Your task to perform on an android device: search for outdoor chairs on article.com Image 0: 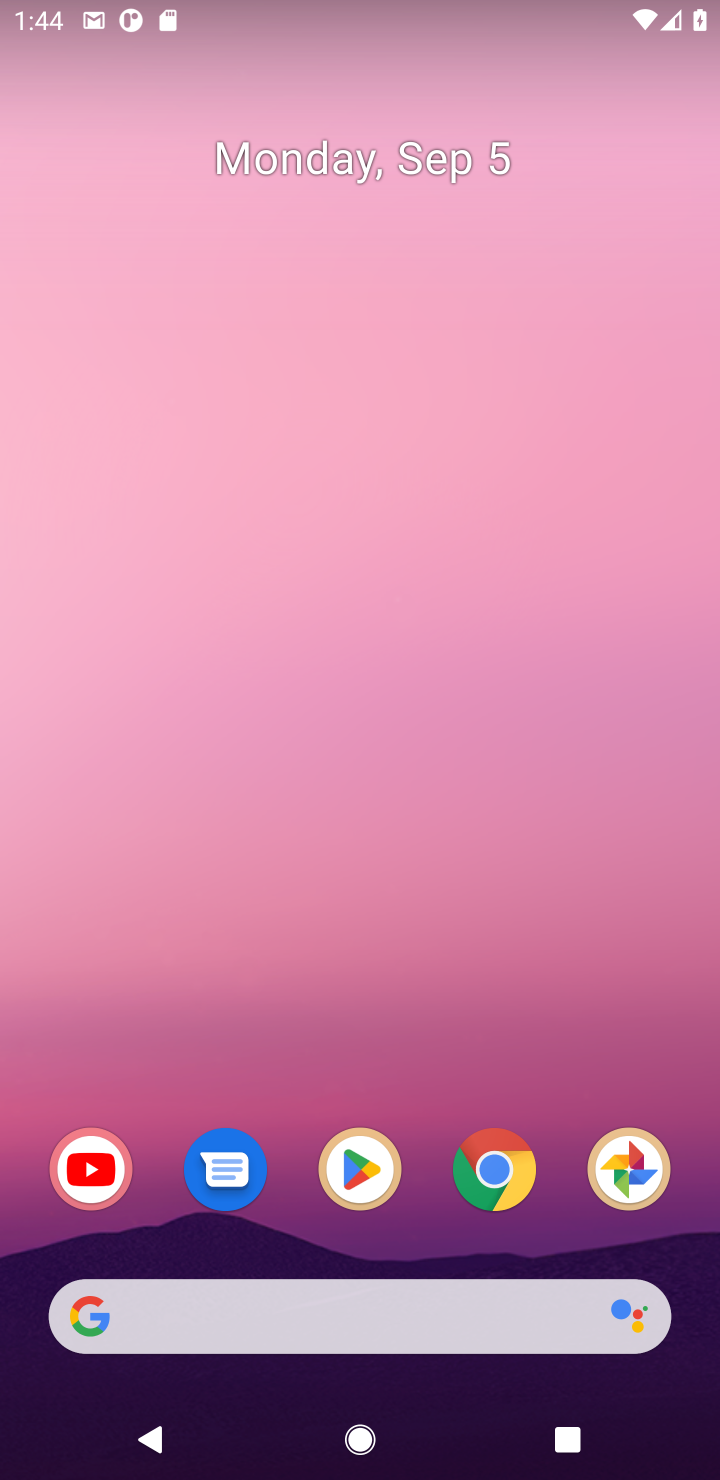
Step 0: task complete